Your task to perform on an android device: Show me the best rated 4K TV on Walmart. Image 0: 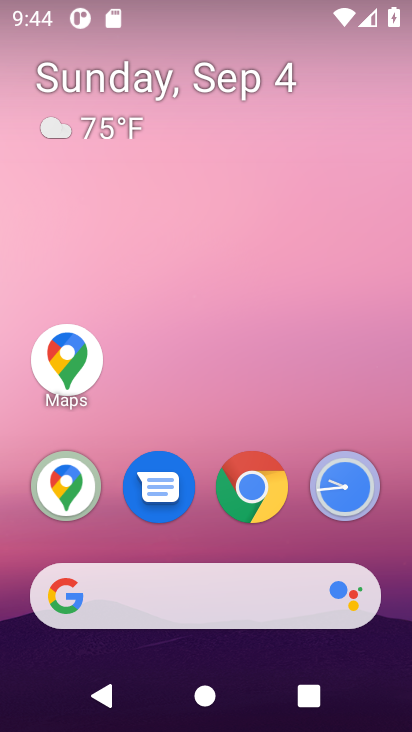
Step 0: click (159, 506)
Your task to perform on an android device: Show me the best rated 4K TV on Walmart. Image 1: 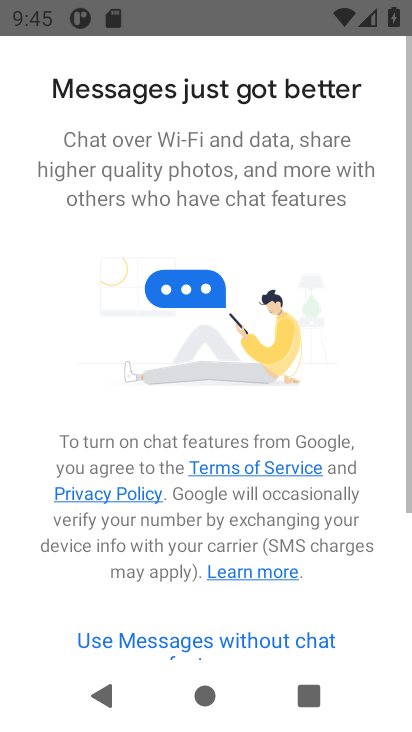
Step 1: task complete